Your task to perform on an android device: Go to Yahoo.com Image 0: 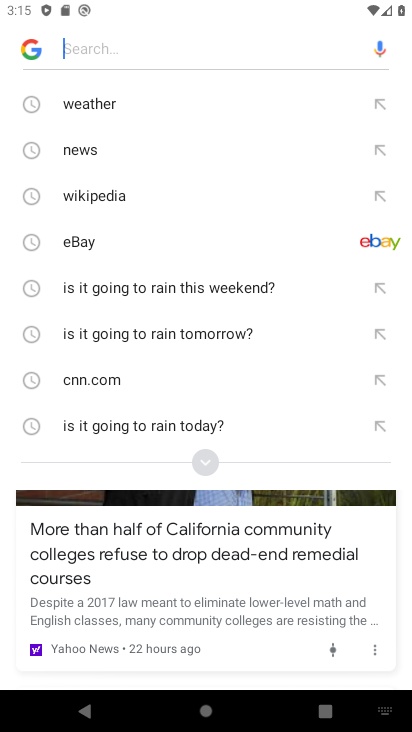
Step 0: press home button
Your task to perform on an android device: Go to Yahoo.com Image 1: 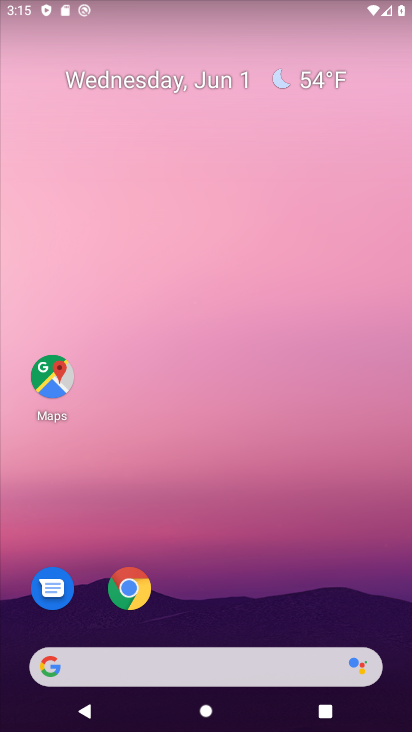
Step 1: click (141, 594)
Your task to perform on an android device: Go to Yahoo.com Image 2: 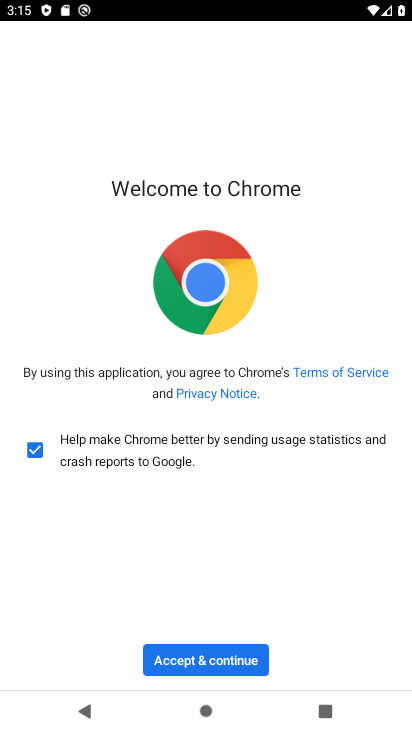
Step 2: click (244, 663)
Your task to perform on an android device: Go to Yahoo.com Image 3: 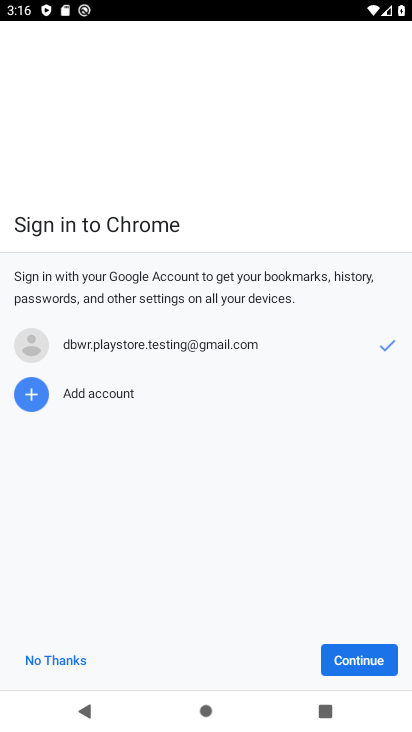
Step 3: click (364, 657)
Your task to perform on an android device: Go to Yahoo.com Image 4: 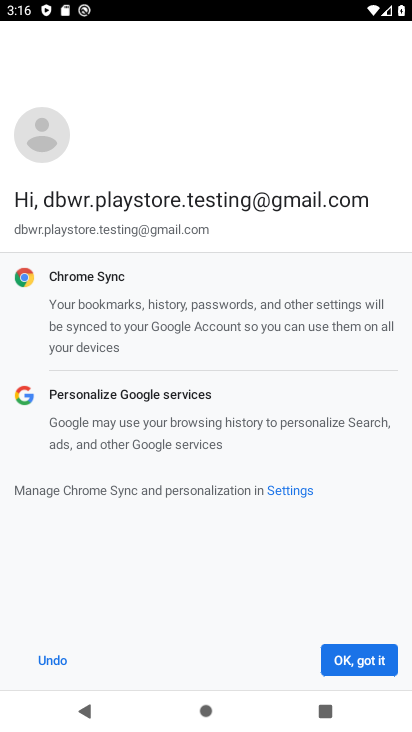
Step 4: click (364, 657)
Your task to perform on an android device: Go to Yahoo.com Image 5: 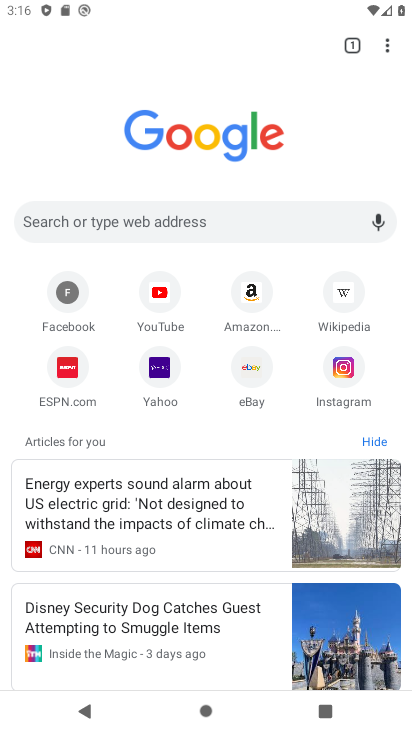
Step 5: click (165, 375)
Your task to perform on an android device: Go to Yahoo.com Image 6: 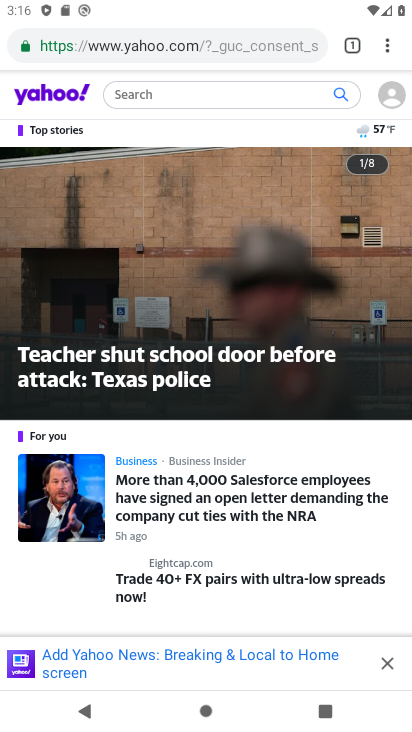
Step 6: task complete